Your task to perform on an android device: turn on javascript in the chrome app Image 0: 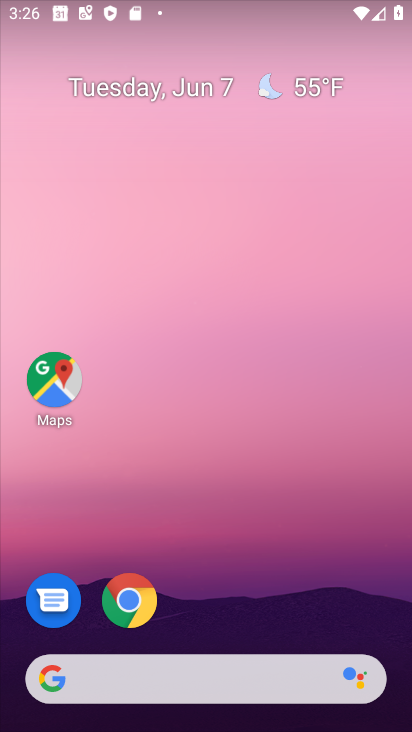
Step 0: click (129, 609)
Your task to perform on an android device: turn on javascript in the chrome app Image 1: 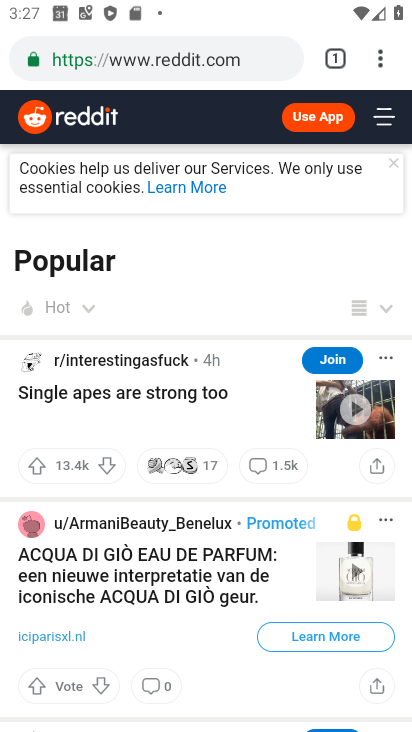
Step 1: click (381, 61)
Your task to perform on an android device: turn on javascript in the chrome app Image 2: 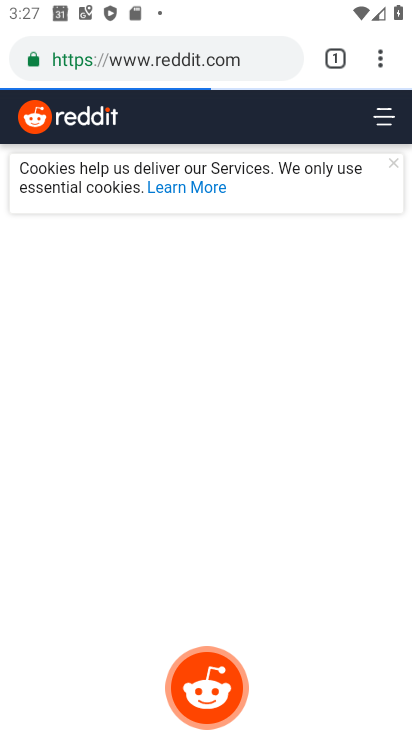
Step 2: click (377, 62)
Your task to perform on an android device: turn on javascript in the chrome app Image 3: 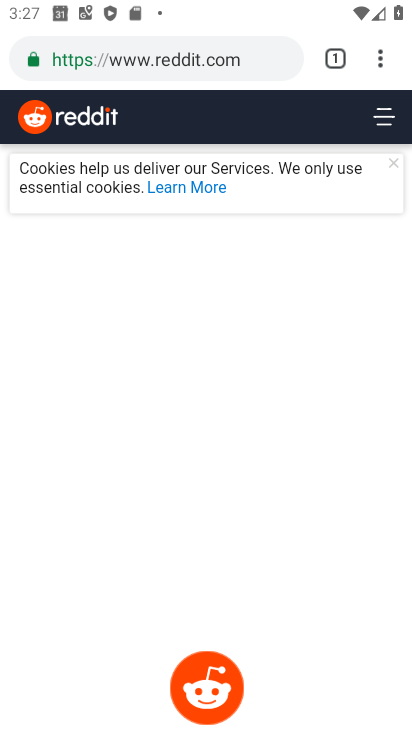
Step 3: click (381, 61)
Your task to perform on an android device: turn on javascript in the chrome app Image 4: 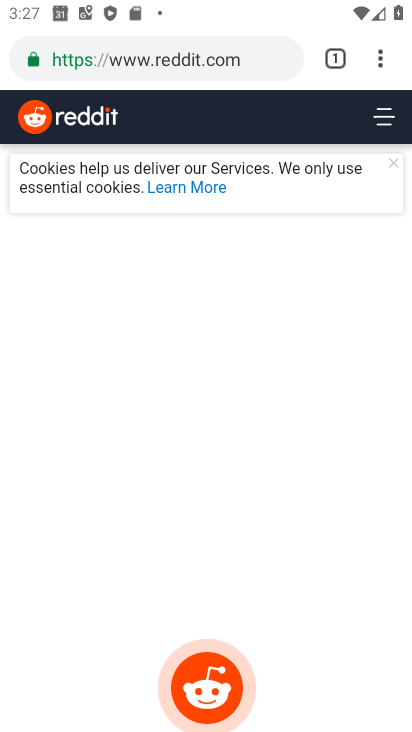
Step 4: click (381, 57)
Your task to perform on an android device: turn on javascript in the chrome app Image 5: 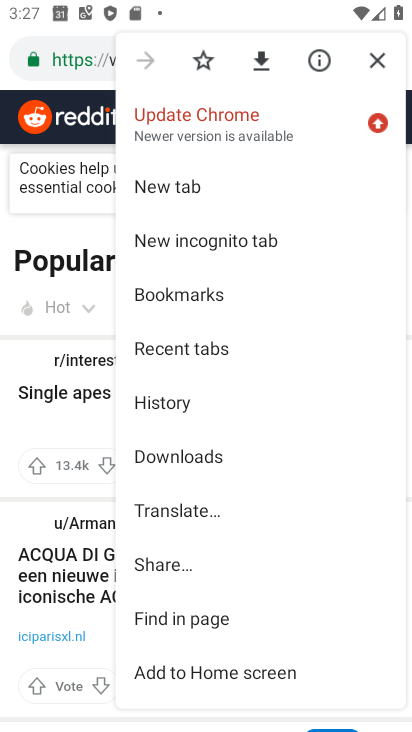
Step 5: drag from (218, 595) to (227, 219)
Your task to perform on an android device: turn on javascript in the chrome app Image 6: 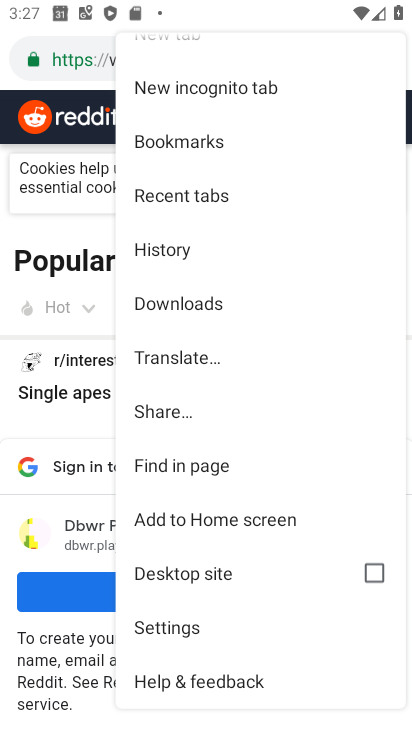
Step 6: click (179, 636)
Your task to perform on an android device: turn on javascript in the chrome app Image 7: 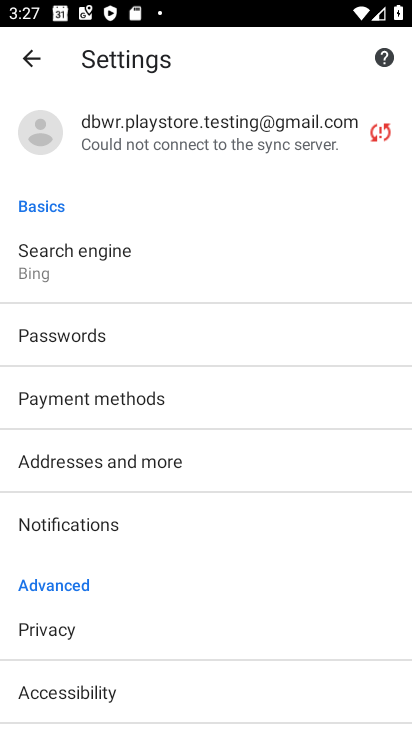
Step 7: drag from (142, 638) to (168, 394)
Your task to perform on an android device: turn on javascript in the chrome app Image 8: 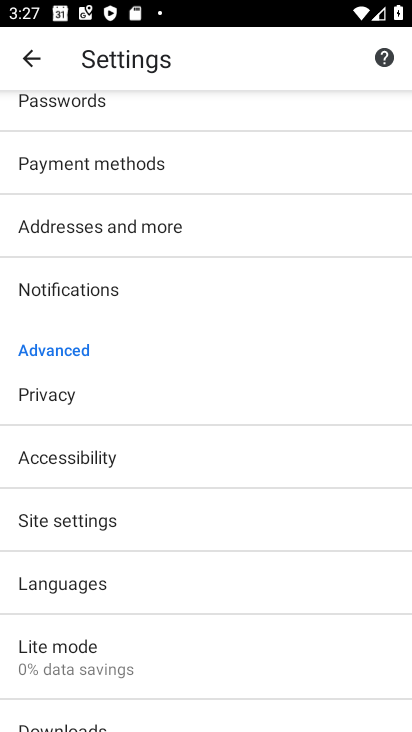
Step 8: click (78, 528)
Your task to perform on an android device: turn on javascript in the chrome app Image 9: 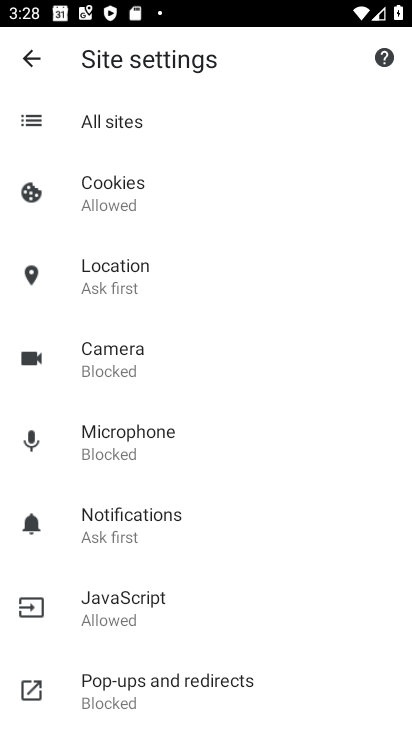
Step 9: click (113, 603)
Your task to perform on an android device: turn on javascript in the chrome app Image 10: 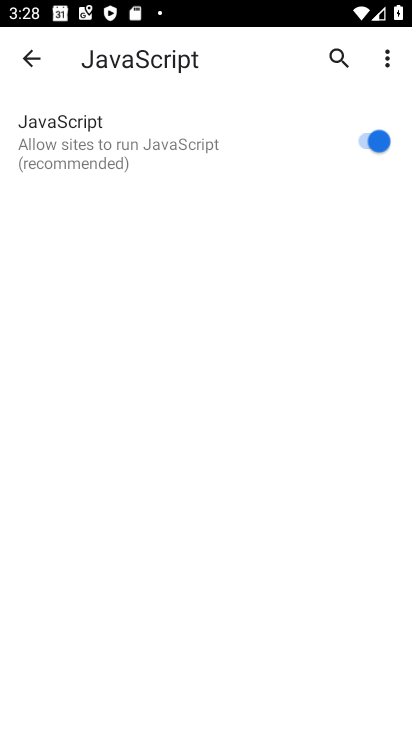
Step 10: task complete